Your task to perform on an android device: clear history in the chrome app Image 0: 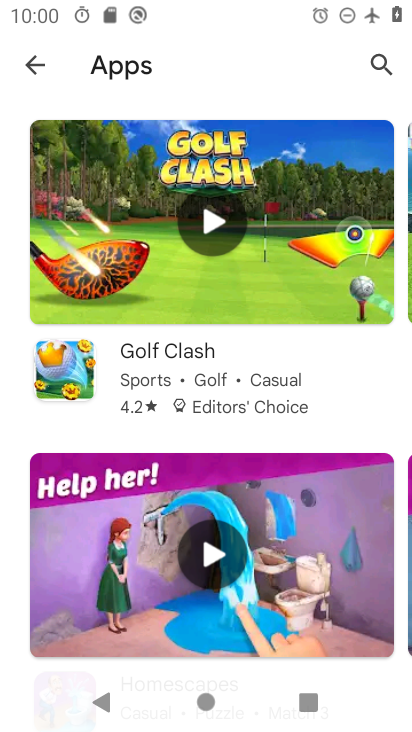
Step 0: press home button
Your task to perform on an android device: clear history in the chrome app Image 1: 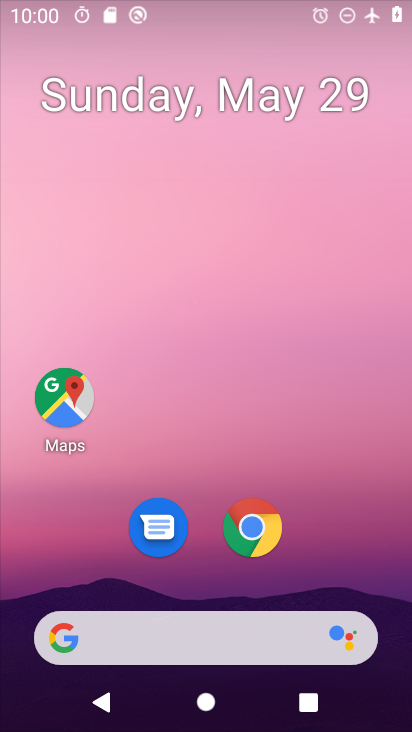
Step 1: drag from (389, 629) to (278, 31)
Your task to perform on an android device: clear history in the chrome app Image 2: 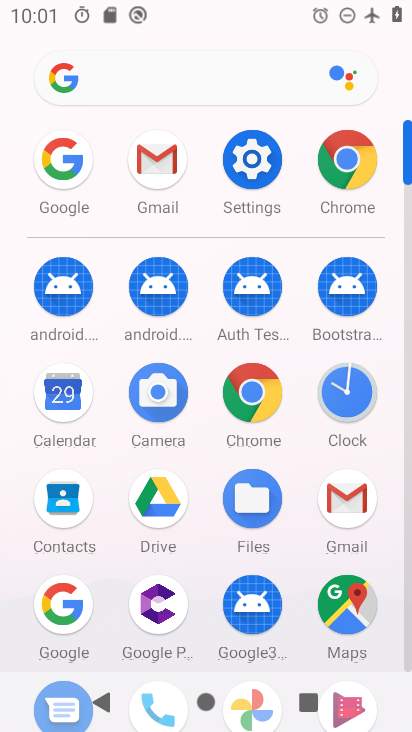
Step 2: click (273, 412)
Your task to perform on an android device: clear history in the chrome app Image 3: 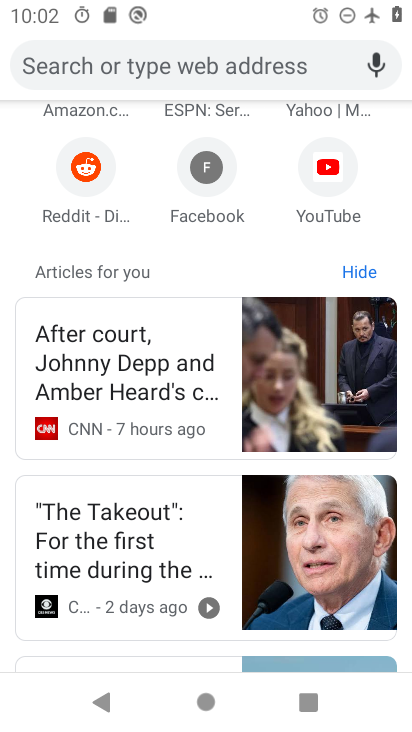
Step 3: drag from (367, 149) to (327, 603)
Your task to perform on an android device: clear history in the chrome app Image 4: 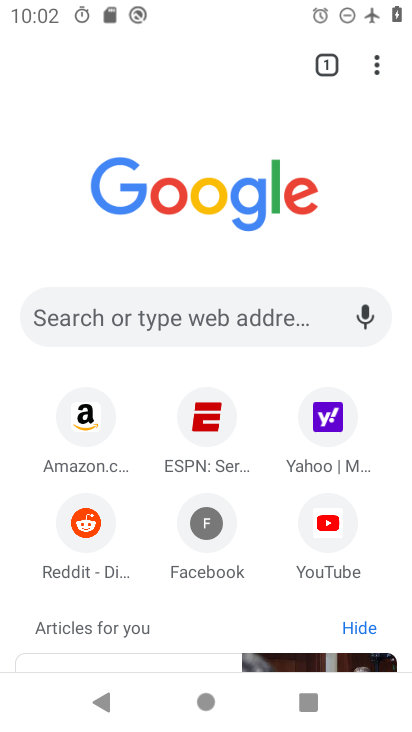
Step 4: click (378, 68)
Your task to perform on an android device: clear history in the chrome app Image 5: 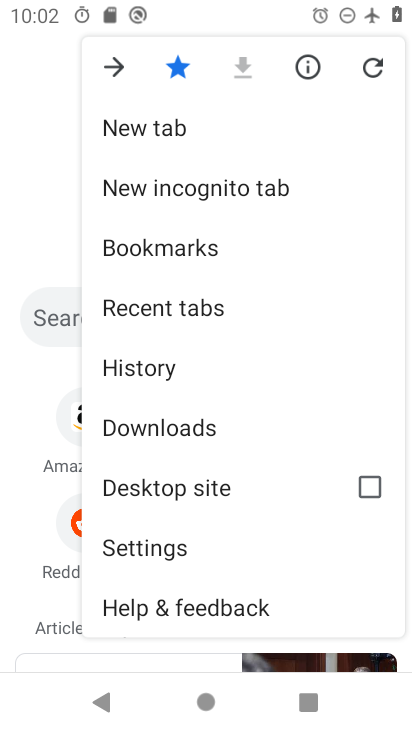
Step 5: click (167, 378)
Your task to perform on an android device: clear history in the chrome app Image 6: 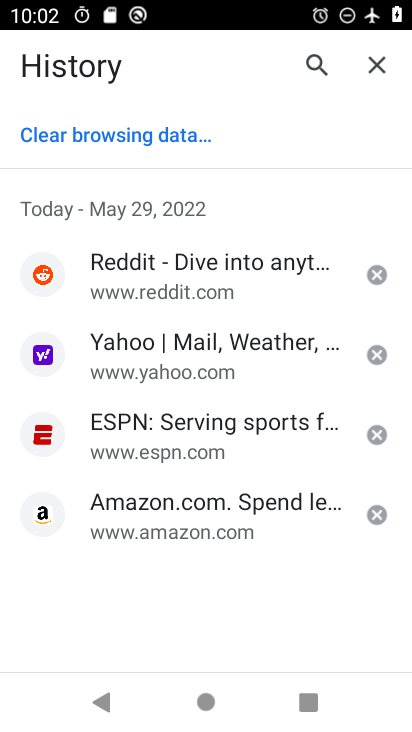
Step 6: click (123, 142)
Your task to perform on an android device: clear history in the chrome app Image 7: 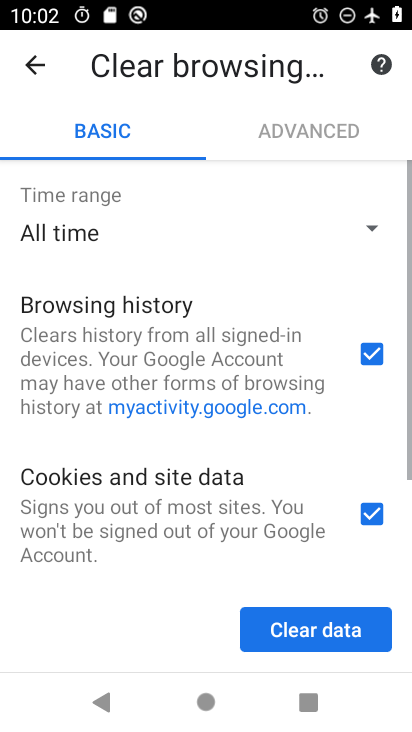
Step 7: click (340, 629)
Your task to perform on an android device: clear history in the chrome app Image 8: 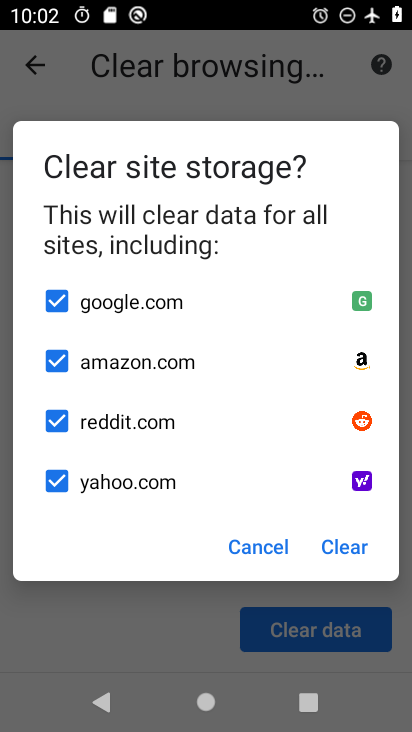
Step 8: click (350, 550)
Your task to perform on an android device: clear history in the chrome app Image 9: 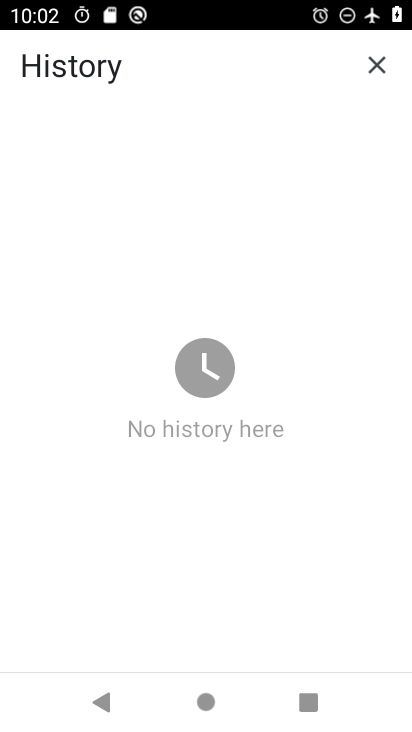
Step 9: task complete